Your task to perform on an android device: Open privacy settings Image 0: 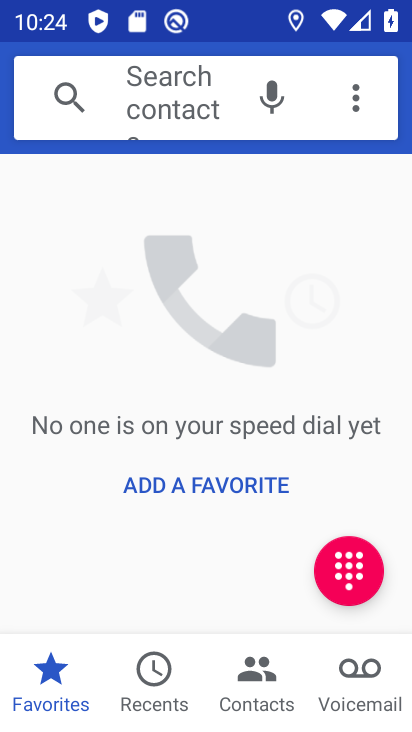
Step 0: press home button
Your task to perform on an android device: Open privacy settings Image 1: 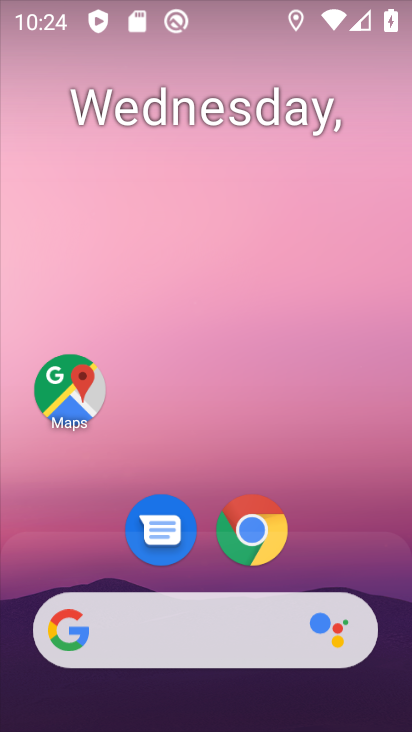
Step 1: drag from (340, 572) to (307, 141)
Your task to perform on an android device: Open privacy settings Image 2: 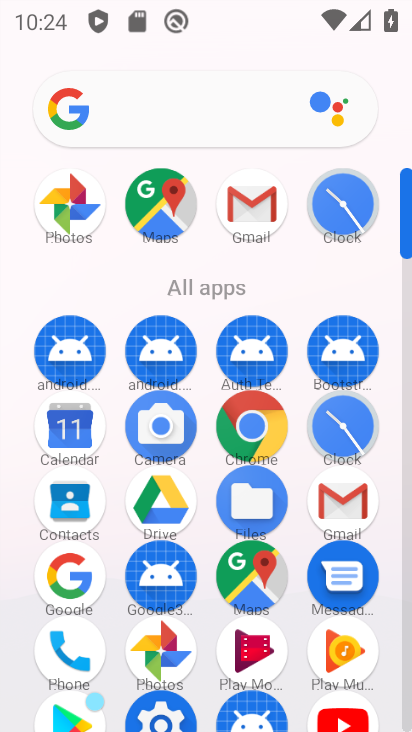
Step 2: click (259, 435)
Your task to perform on an android device: Open privacy settings Image 3: 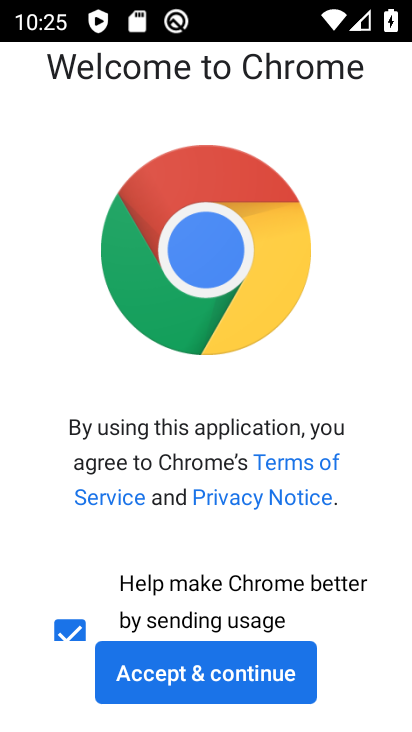
Step 3: click (264, 684)
Your task to perform on an android device: Open privacy settings Image 4: 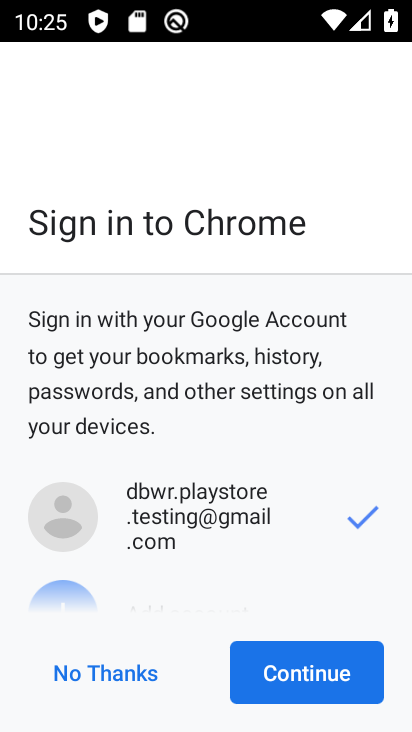
Step 4: click (290, 684)
Your task to perform on an android device: Open privacy settings Image 5: 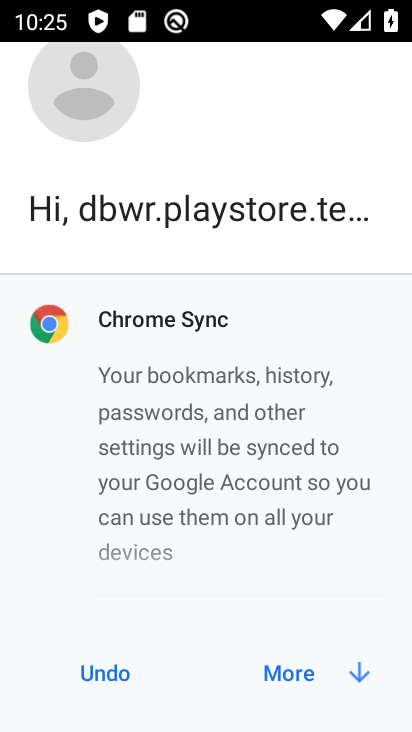
Step 5: click (293, 682)
Your task to perform on an android device: Open privacy settings Image 6: 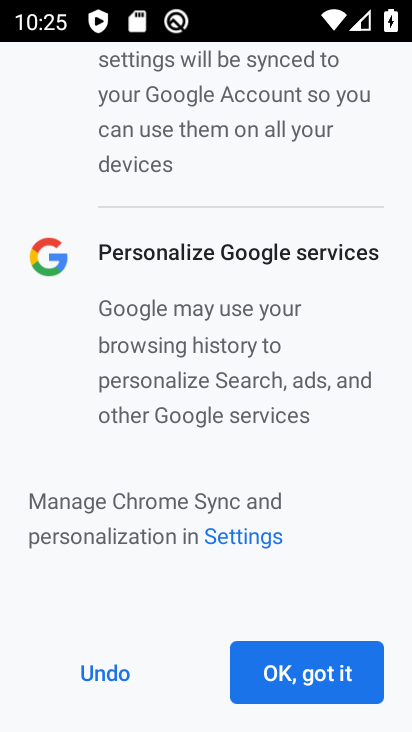
Step 6: click (293, 682)
Your task to perform on an android device: Open privacy settings Image 7: 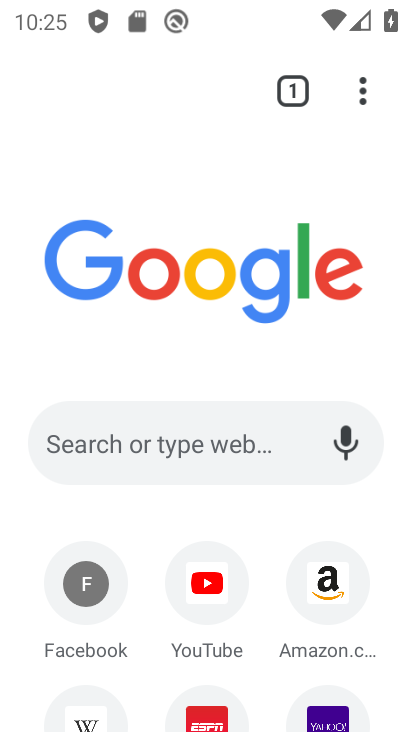
Step 7: click (359, 98)
Your task to perform on an android device: Open privacy settings Image 8: 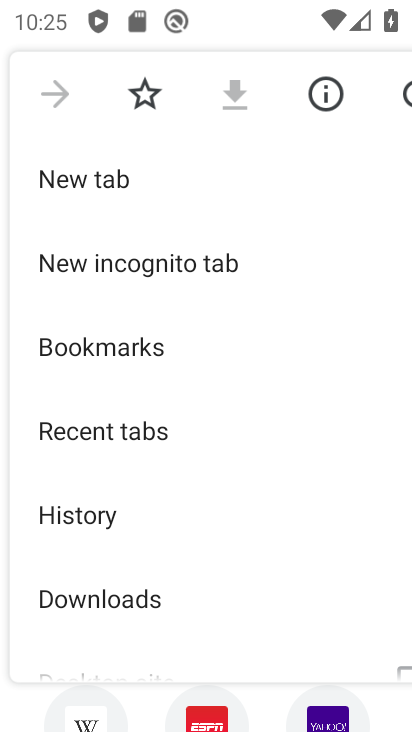
Step 8: drag from (335, 621) to (221, 278)
Your task to perform on an android device: Open privacy settings Image 9: 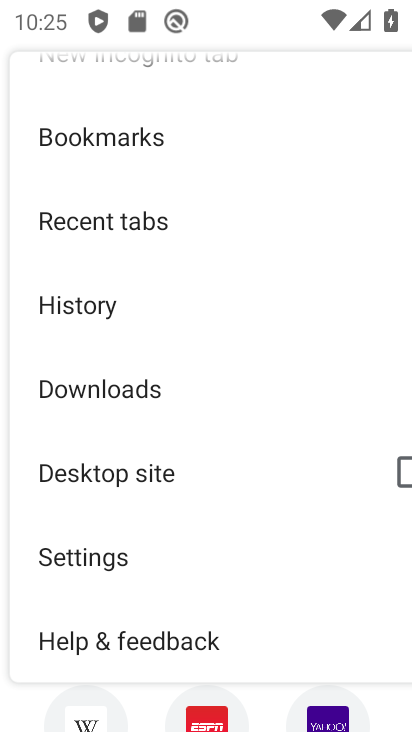
Step 9: click (188, 555)
Your task to perform on an android device: Open privacy settings Image 10: 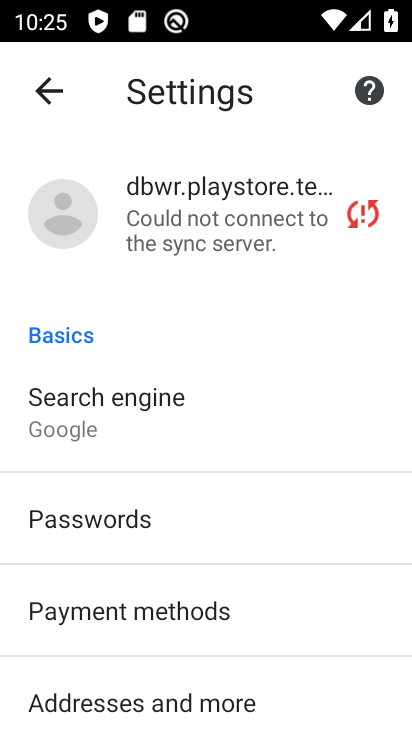
Step 10: drag from (252, 621) to (189, 152)
Your task to perform on an android device: Open privacy settings Image 11: 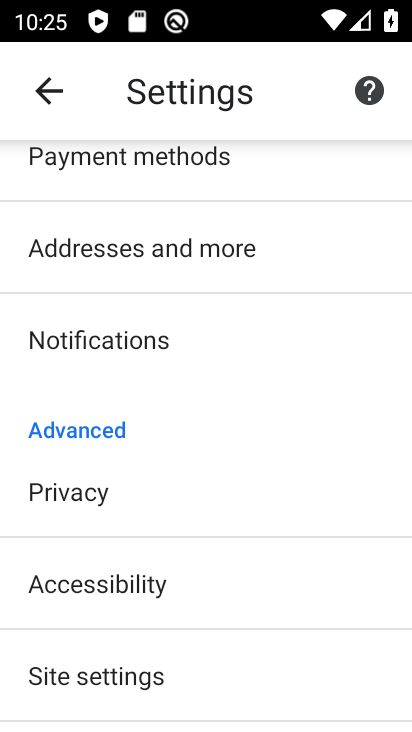
Step 11: click (132, 485)
Your task to perform on an android device: Open privacy settings Image 12: 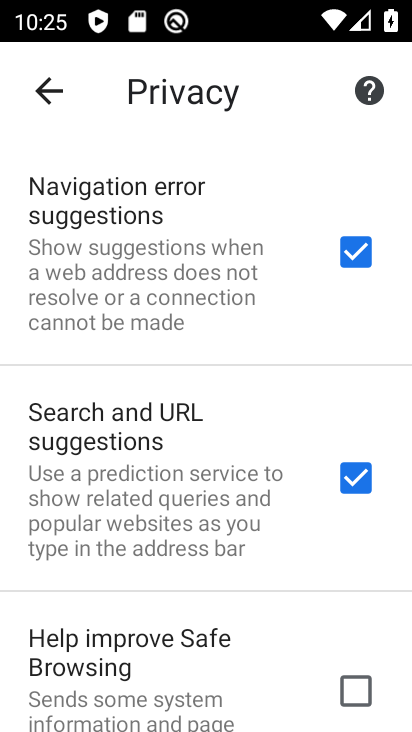
Step 12: task complete